Your task to perform on an android device: Open Youtube and go to the subscriptions tab Image 0: 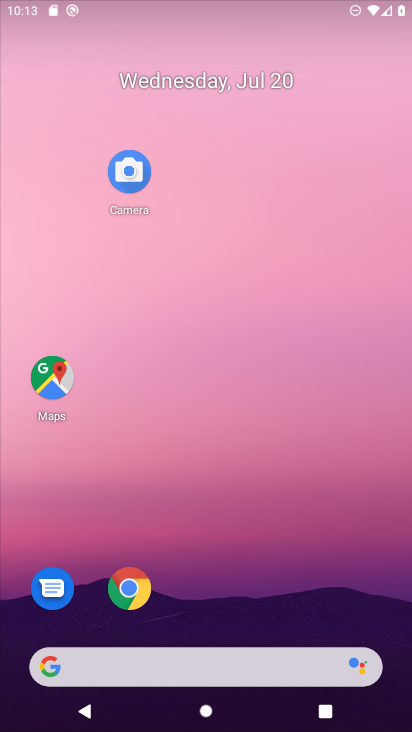
Step 0: click (324, 169)
Your task to perform on an android device: Open Youtube and go to the subscriptions tab Image 1: 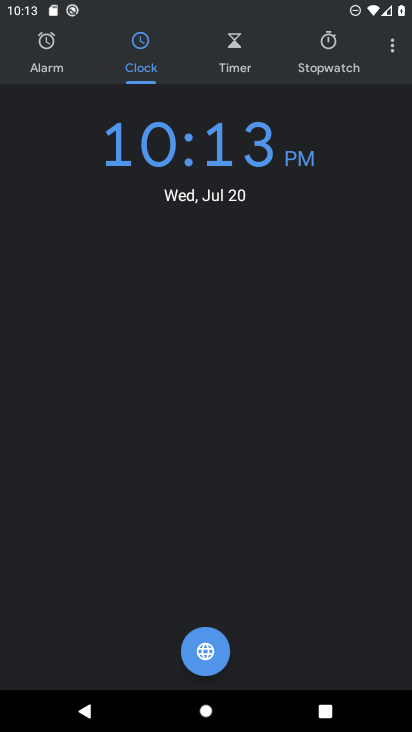
Step 1: press home button
Your task to perform on an android device: Open Youtube and go to the subscriptions tab Image 2: 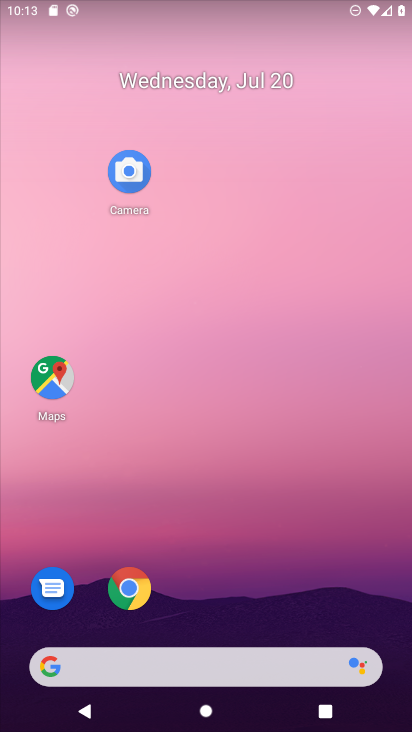
Step 2: drag from (259, 621) to (308, 196)
Your task to perform on an android device: Open Youtube and go to the subscriptions tab Image 3: 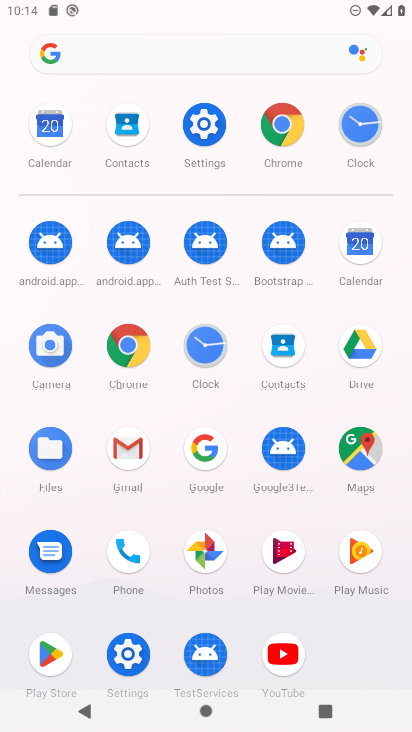
Step 3: click (267, 669)
Your task to perform on an android device: Open Youtube and go to the subscriptions tab Image 4: 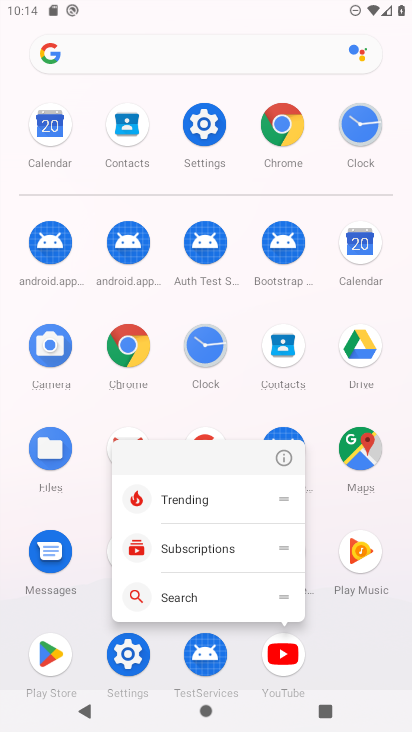
Step 4: click (290, 658)
Your task to perform on an android device: Open Youtube and go to the subscriptions tab Image 5: 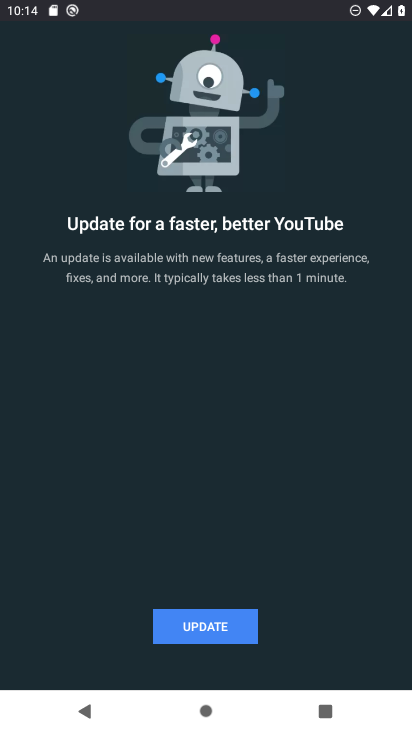
Step 5: click (236, 621)
Your task to perform on an android device: Open Youtube and go to the subscriptions tab Image 6: 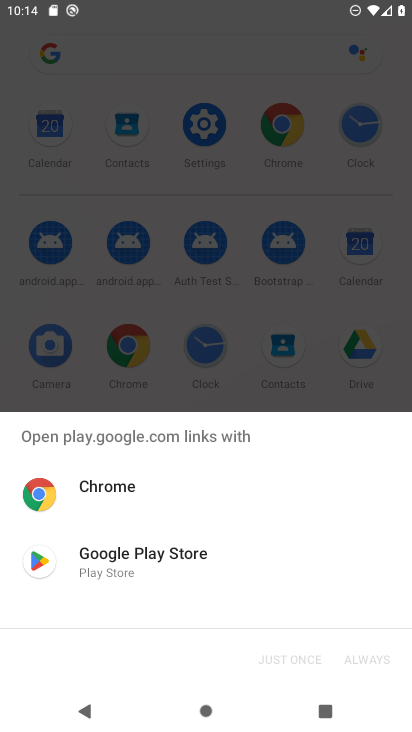
Step 6: click (104, 552)
Your task to perform on an android device: Open Youtube and go to the subscriptions tab Image 7: 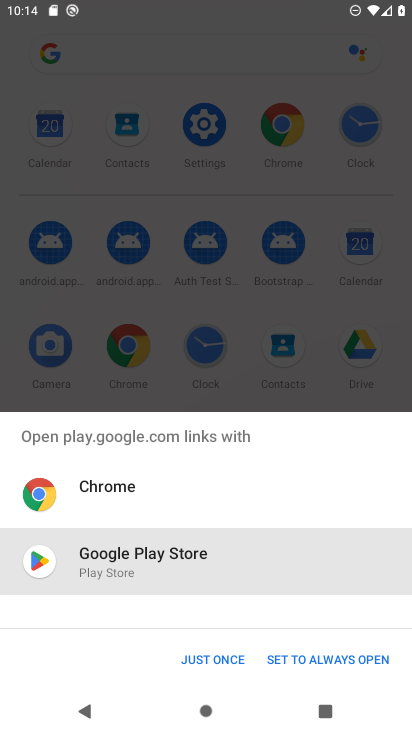
Step 7: click (209, 656)
Your task to perform on an android device: Open Youtube and go to the subscriptions tab Image 8: 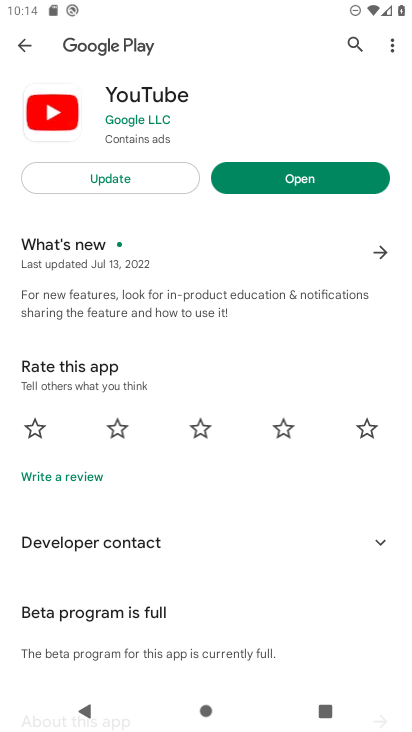
Step 8: click (62, 187)
Your task to perform on an android device: Open Youtube and go to the subscriptions tab Image 9: 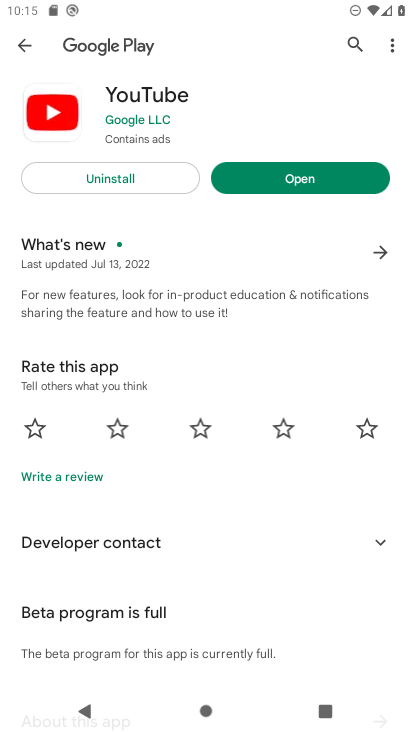
Step 9: click (230, 173)
Your task to perform on an android device: Open Youtube and go to the subscriptions tab Image 10: 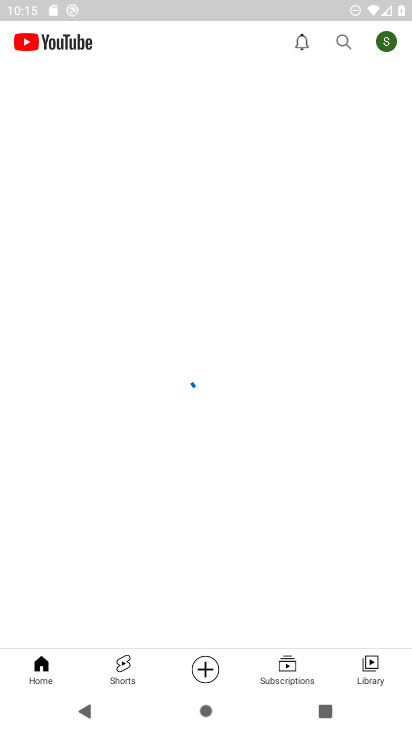
Step 10: click (285, 661)
Your task to perform on an android device: Open Youtube and go to the subscriptions tab Image 11: 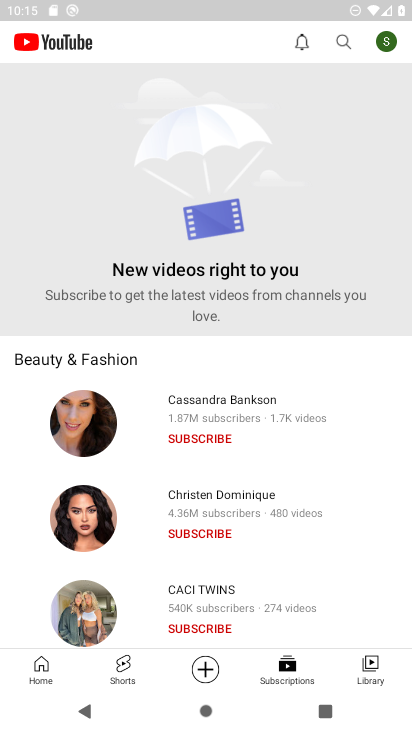
Step 11: task complete